Your task to perform on an android device: toggle translation in the chrome app Image 0: 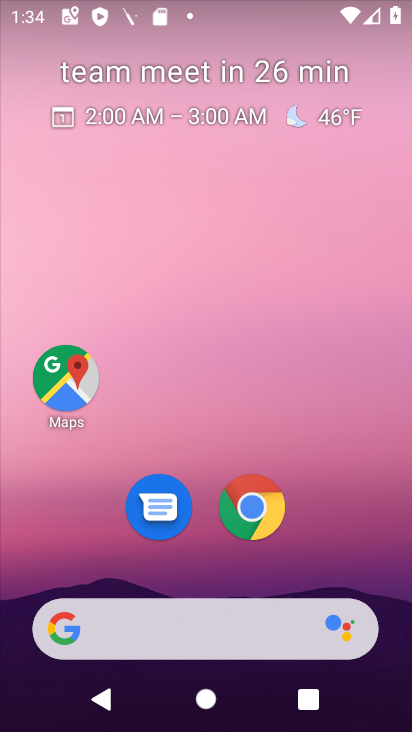
Step 0: drag from (297, 641) to (227, 153)
Your task to perform on an android device: toggle translation in the chrome app Image 1: 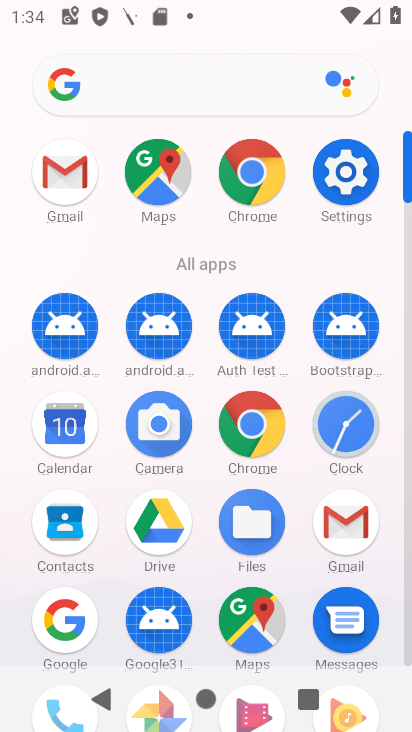
Step 1: click (247, 211)
Your task to perform on an android device: toggle translation in the chrome app Image 2: 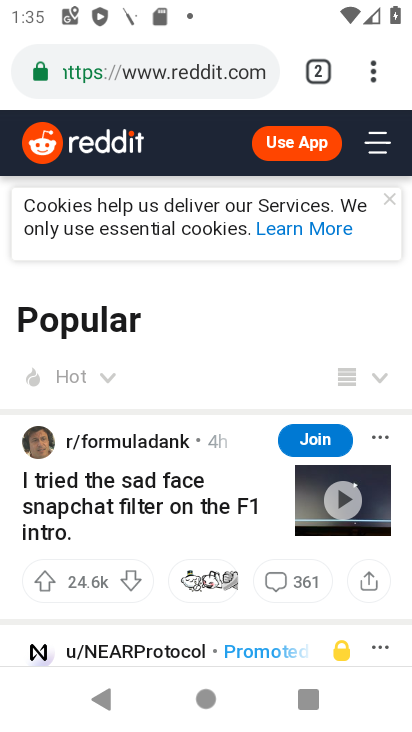
Step 2: click (373, 70)
Your task to perform on an android device: toggle translation in the chrome app Image 3: 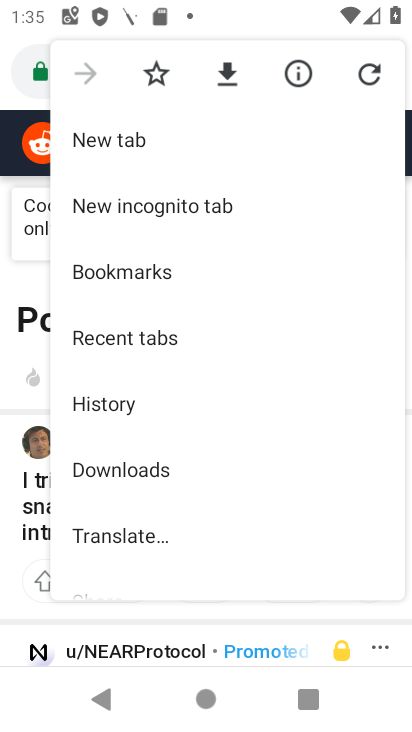
Step 3: drag from (138, 502) to (143, 302)
Your task to perform on an android device: toggle translation in the chrome app Image 4: 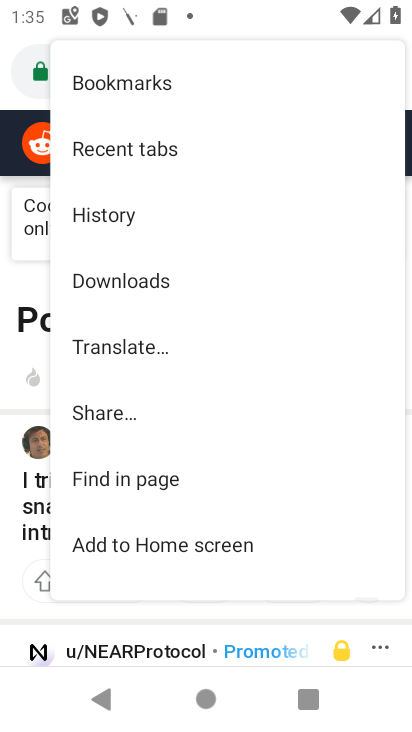
Step 4: drag from (141, 521) to (218, 398)
Your task to perform on an android device: toggle translation in the chrome app Image 5: 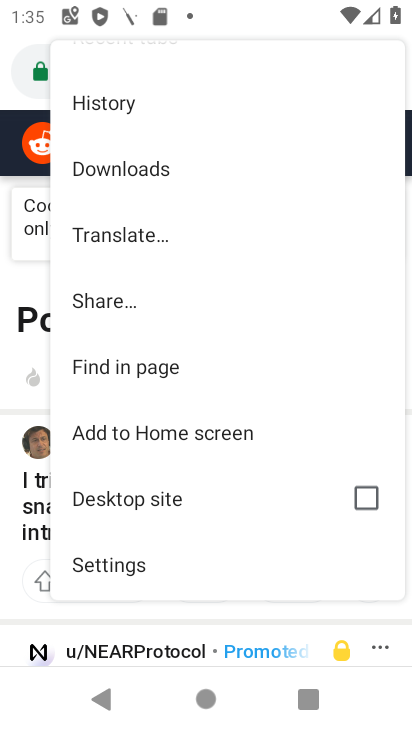
Step 5: click (118, 564)
Your task to perform on an android device: toggle translation in the chrome app Image 6: 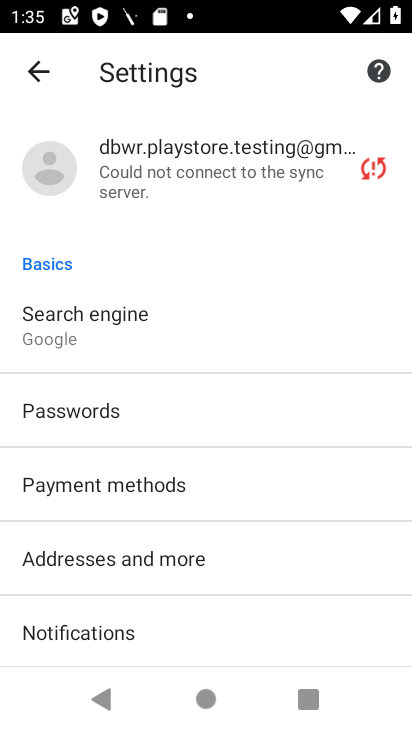
Step 6: drag from (138, 602) to (150, 494)
Your task to perform on an android device: toggle translation in the chrome app Image 7: 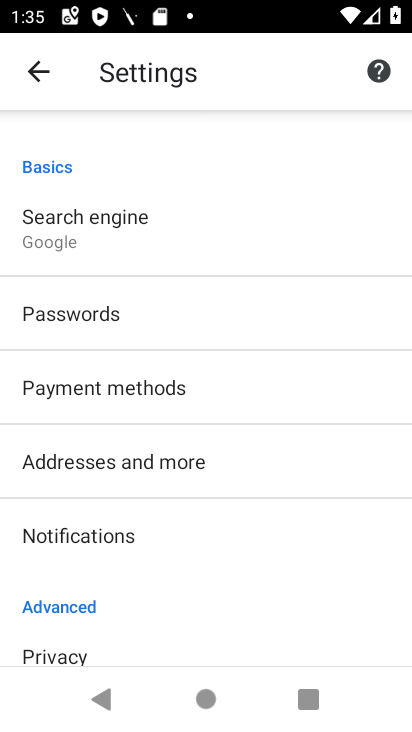
Step 7: drag from (151, 530) to (157, 477)
Your task to perform on an android device: toggle translation in the chrome app Image 8: 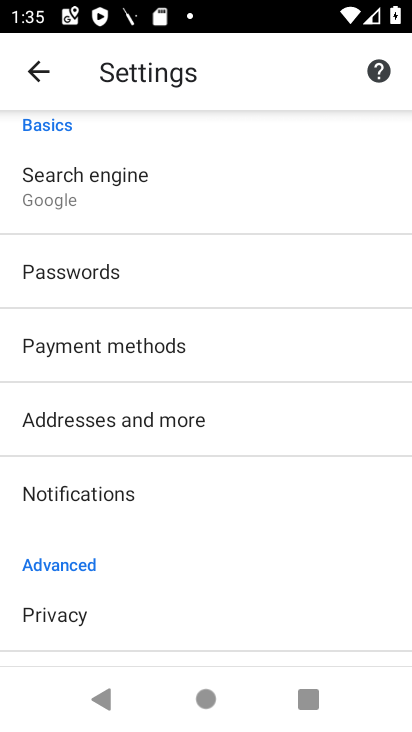
Step 8: drag from (136, 536) to (185, 339)
Your task to perform on an android device: toggle translation in the chrome app Image 9: 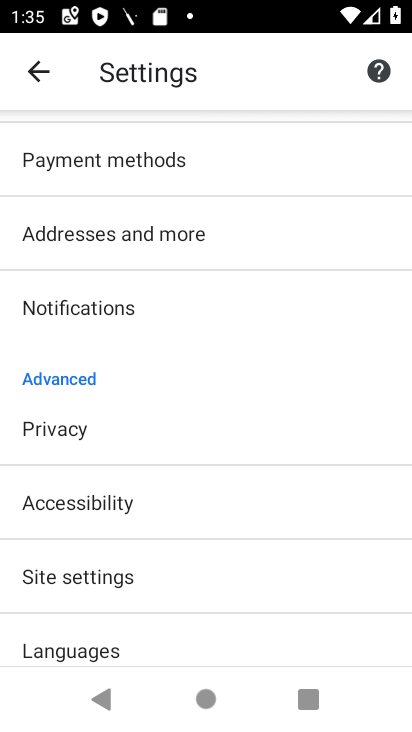
Step 9: click (118, 644)
Your task to perform on an android device: toggle translation in the chrome app Image 10: 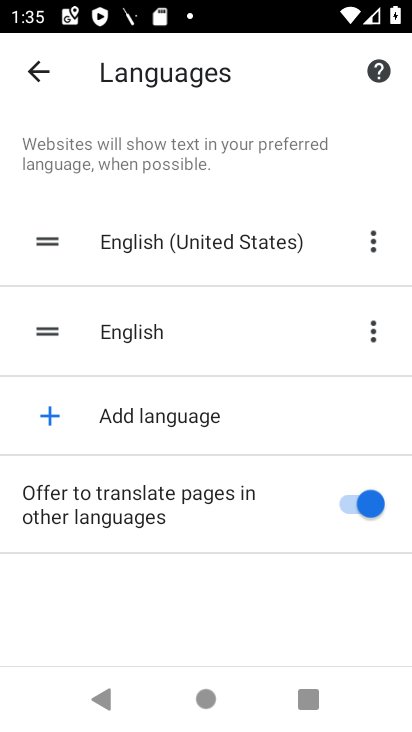
Step 10: click (267, 488)
Your task to perform on an android device: toggle translation in the chrome app Image 11: 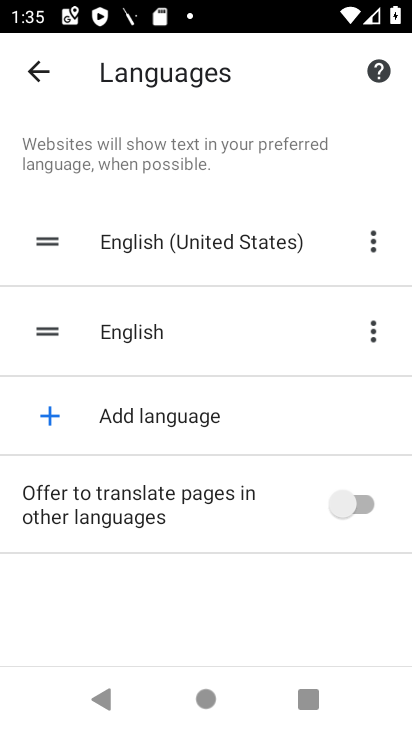
Step 11: click (267, 488)
Your task to perform on an android device: toggle translation in the chrome app Image 12: 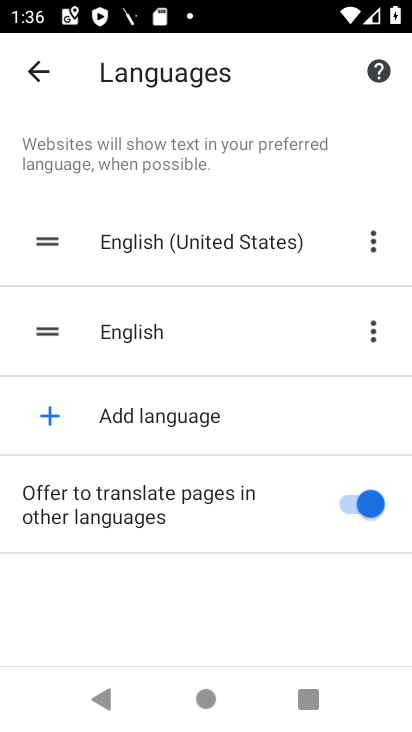
Step 12: task complete